Your task to perform on an android device: snooze an email in the gmail app Image 0: 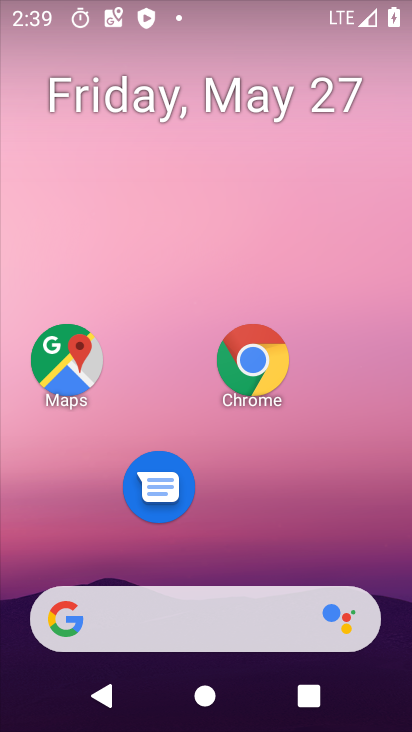
Step 0: drag from (227, 540) to (211, 131)
Your task to perform on an android device: snooze an email in the gmail app Image 1: 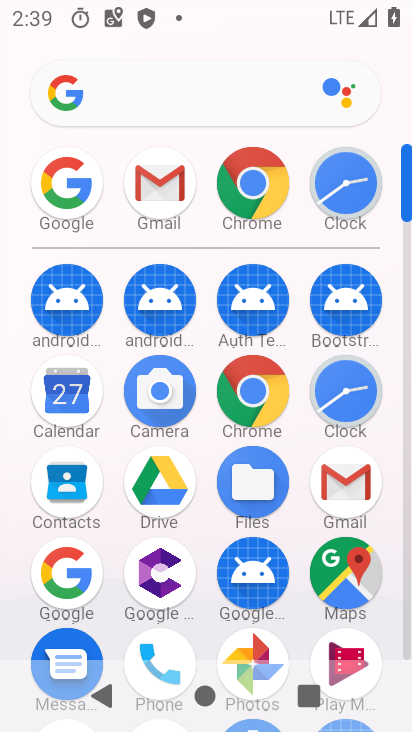
Step 1: click (161, 184)
Your task to perform on an android device: snooze an email in the gmail app Image 2: 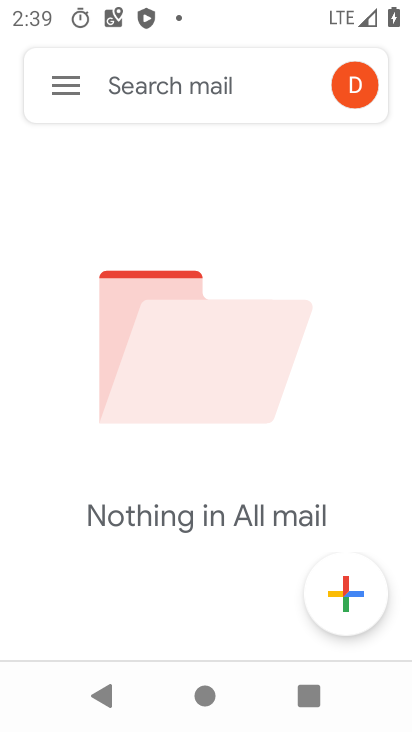
Step 2: click (63, 90)
Your task to perform on an android device: snooze an email in the gmail app Image 3: 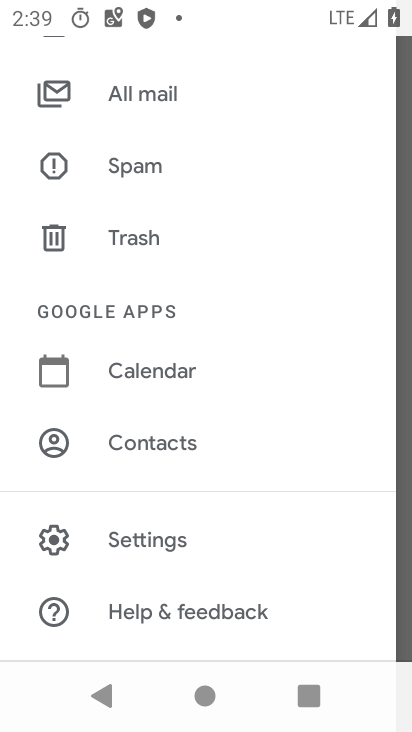
Step 3: task complete